Your task to perform on an android device: change your default location settings in chrome Image 0: 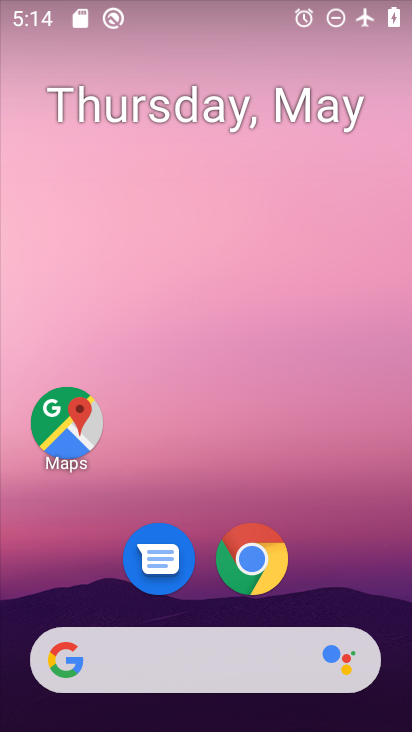
Step 0: click (259, 549)
Your task to perform on an android device: change your default location settings in chrome Image 1: 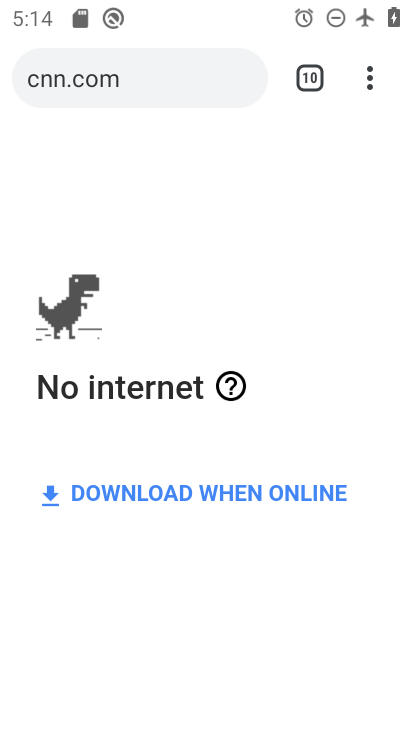
Step 1: click (365, 82)
Your task to perform on an android device: change your default location settings in chrome Image 2: 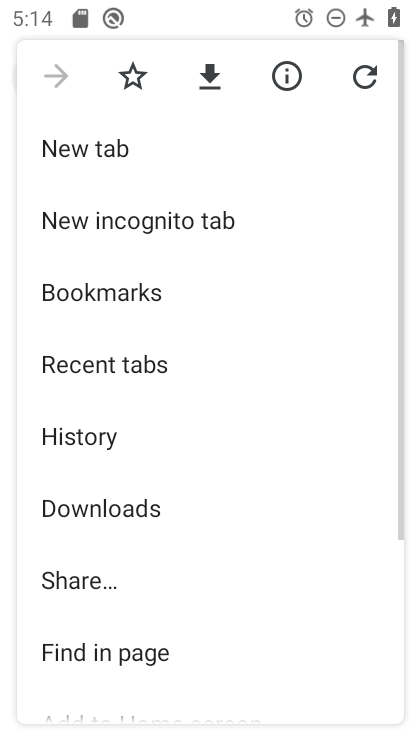
Step 2: drag from (185, 543) to (192, 146)
Your task to perform on an android device: change your default location settings in chrome Image 3: 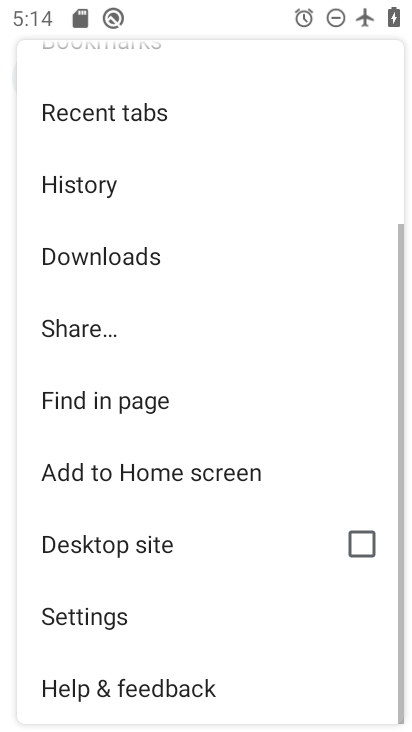
Step 3: click (119, 605)
Your task to perform on an android device: change your default location settings in chrome Image 4: 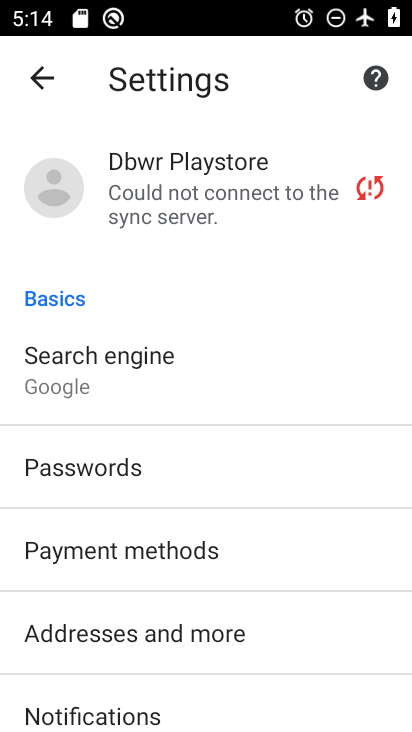
Step 4: drag from (198, 610) to (227, 182)
Your task to perform on an android device: change your default location settings in chrome Image 5: 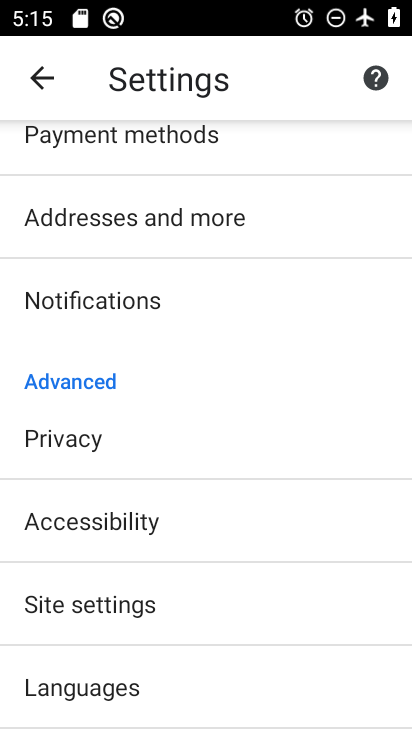
Step 5: click (135, 602)
Your task to perform on an android device: change your default location settings in chrome Image 6: 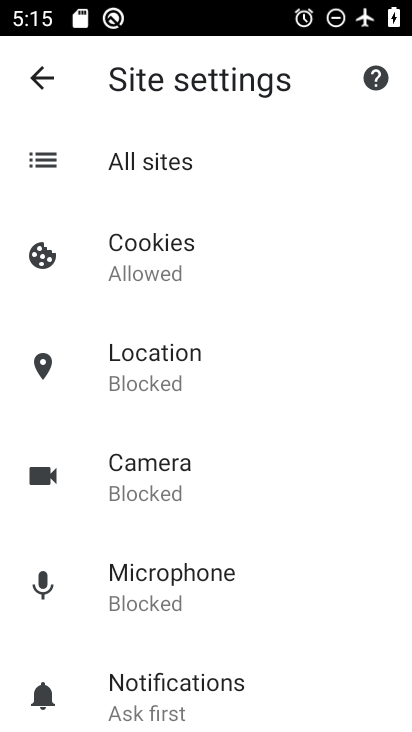
Step 6: click (210, 359)
Your task to perform on an android device: change your default location settings in chrome Image 7: 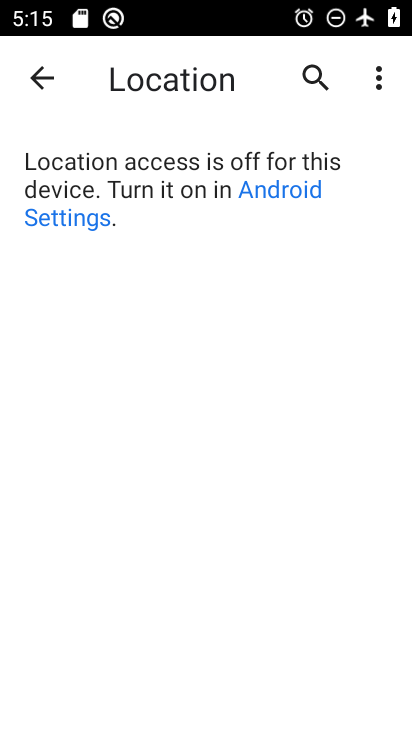
Step 7: click (283, 183)
Your task to perform on an android device: change your default location settings in chrome Image 8: 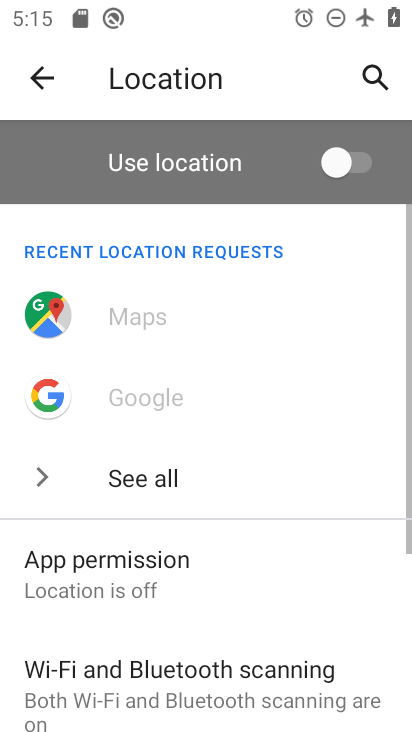
Step 8: click (341, 170)
Your task to perform on an android device: change your default location settings in chrome Image 9: 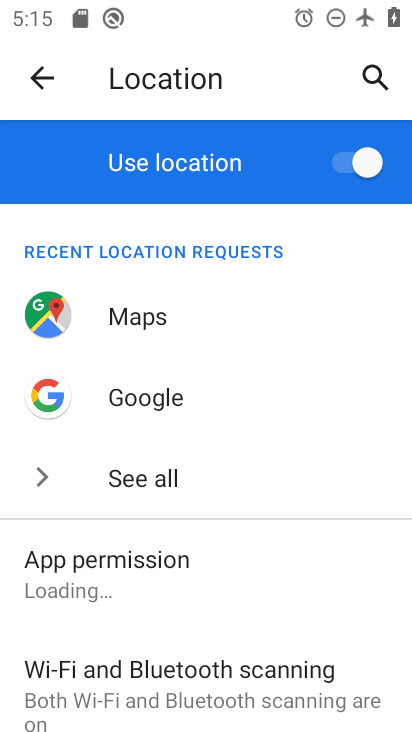
Step 9: task complete